Your task to perform on an android device: Search for seafood restaurants on Google Maps Image 0: 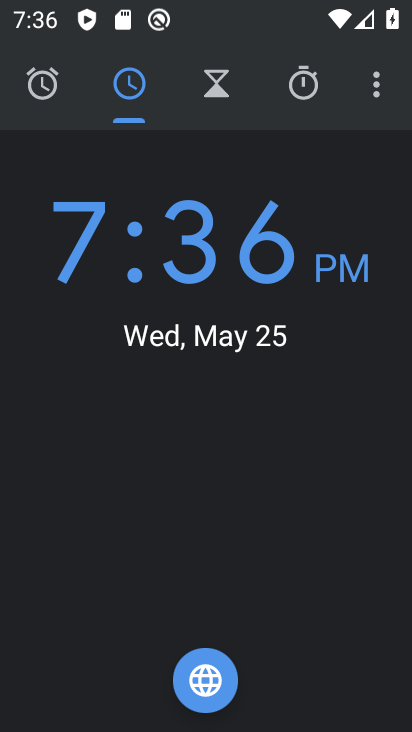
Step 0: press home button
Your task to perform on an android device: Search for seafood restaurants on Google Maps Image 1: 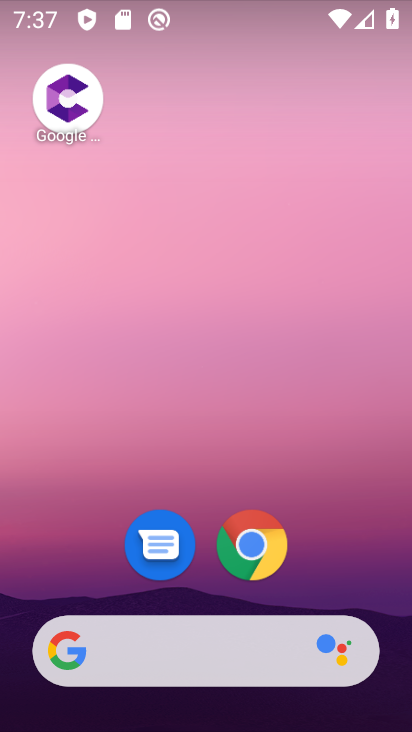
Step 1: drag from (64, 401) to (304, 65)
Your task to perform on an android device: Search for seafood restaurants on Google Maps Image 2: 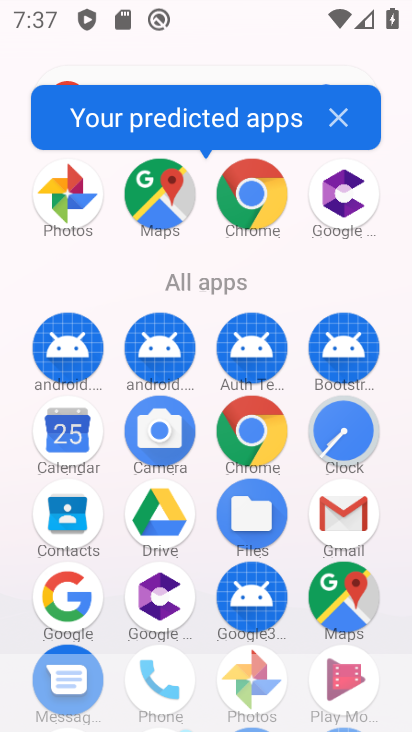
Step 2: click (339, 600)
Your task to perform on an android device: Search for seafood restaurants on Google Maps Image 3: 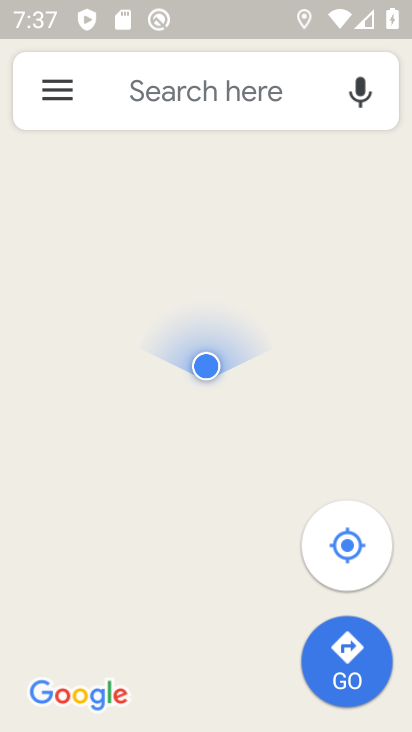
Step 3: click (196, 93)
Your task to perform on an android device: Search for seafood restaurants on Google Maps Image 4: 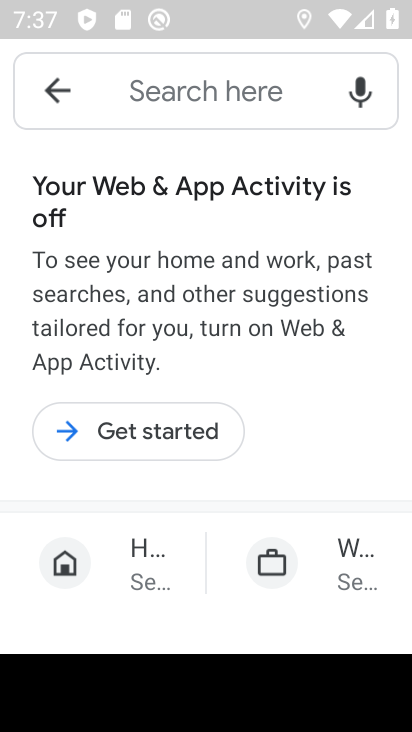
Step 4: click (215, 93)
Your task to perform on an android device: Search for seafood restaurants on Google Maps Image 5: 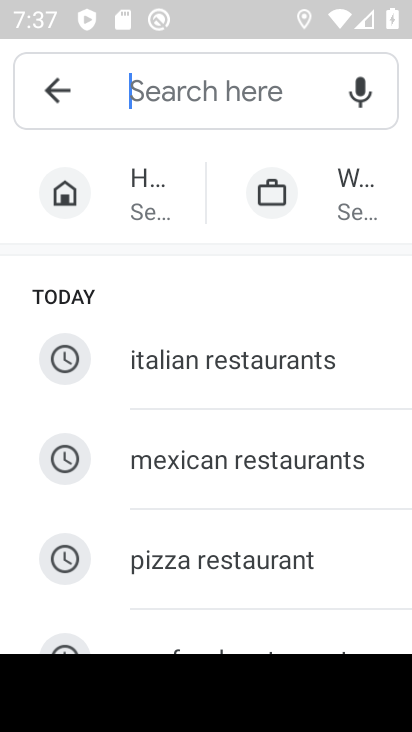
Step 5: drag from (117, 616) to (267, 217)
Your task to perform on an android device: Search for seafood restaurants on Google Maps Image 6: 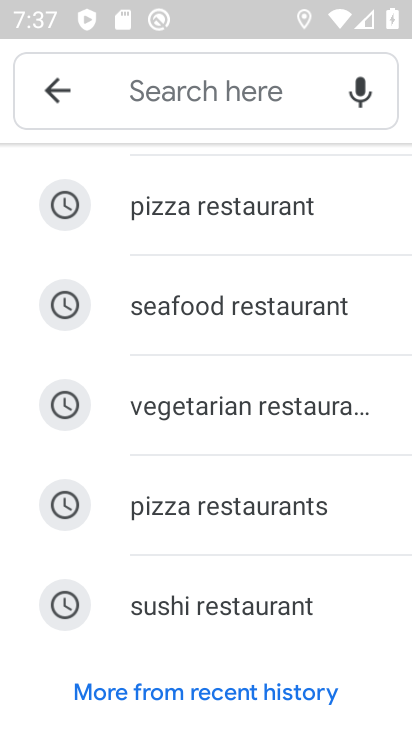
Step 6: click (241, 303)
Your task to perform on an android device: Search for seafood restaurants on Google Maps Image 7: 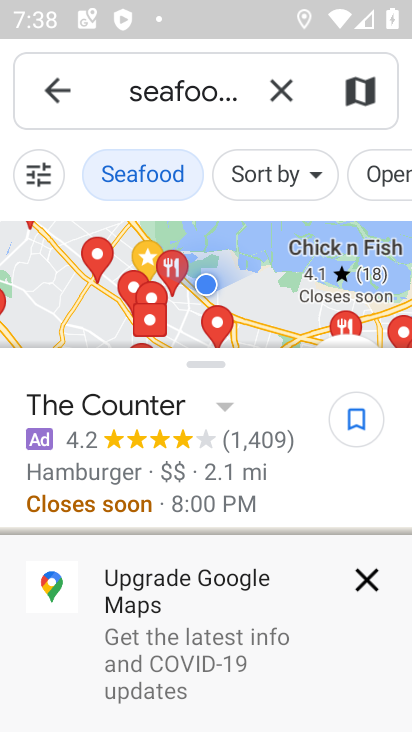
Step 7: task complete